Your task to perform on an android device: check data usage Image 0: 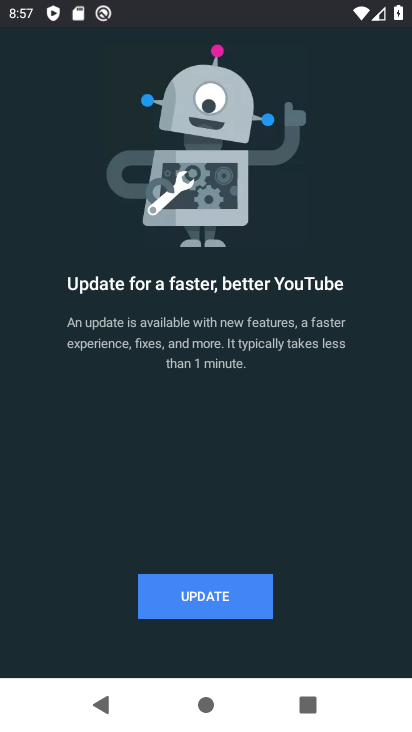
Step 0: press home button
Your task to perform on an android device: check data usage Image 1: 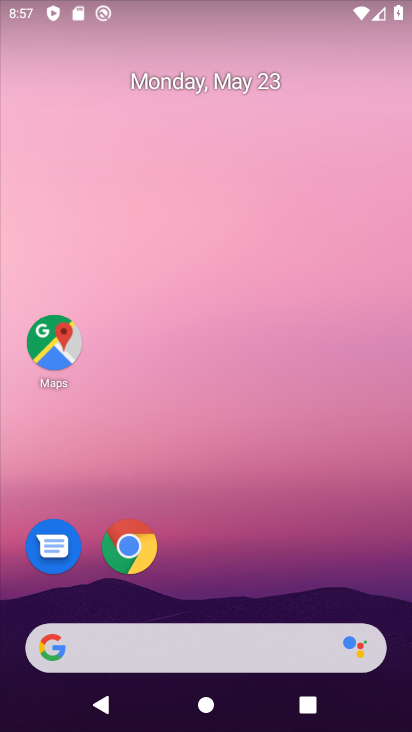
Step 1: drag from (256, 523) to (253, 143)
Your task to perform on an android device: check data usage Image 2: 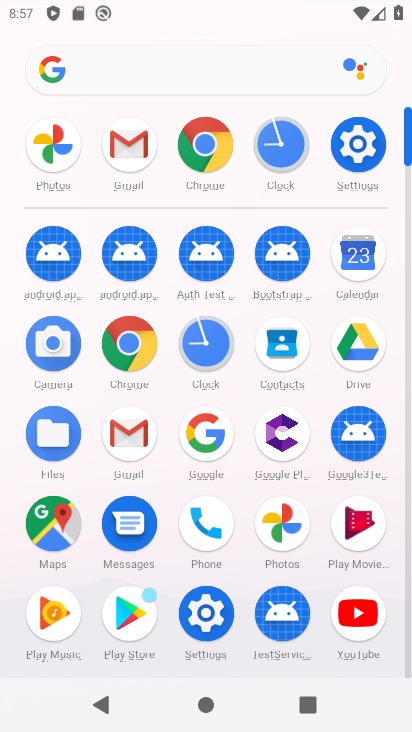
Step 2: click (370, 144)
Your task to perform on an android device: check data usage Image 3: 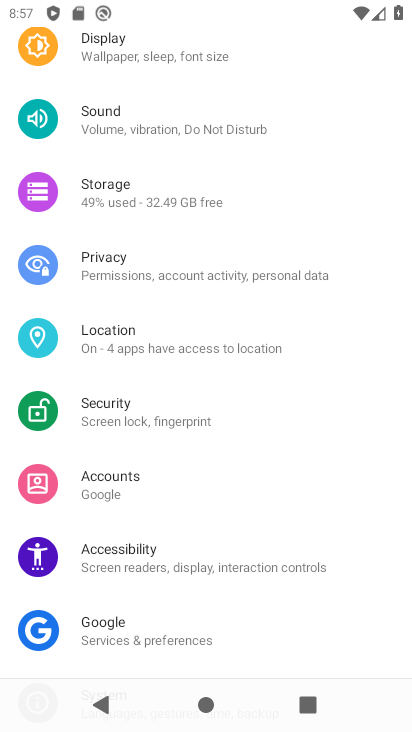
Step 3: drag from (136, 564) to (198, 677)
Your task to perform on an android device: check data usage Image 4: 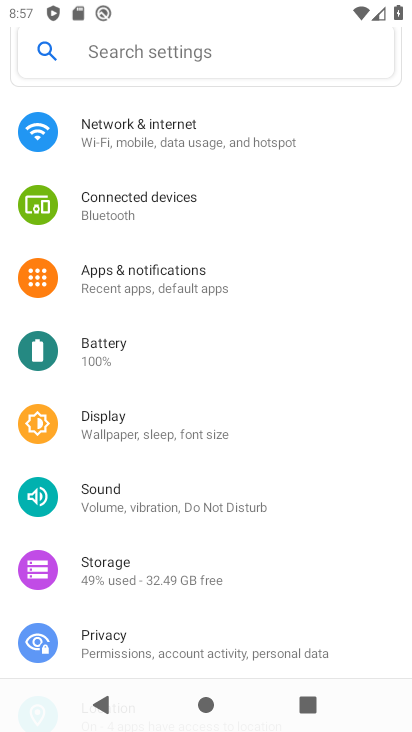
Step 4: drag from (185, 224) to (136, 389)
Your task to perform on an android device: check data usage Image 5: 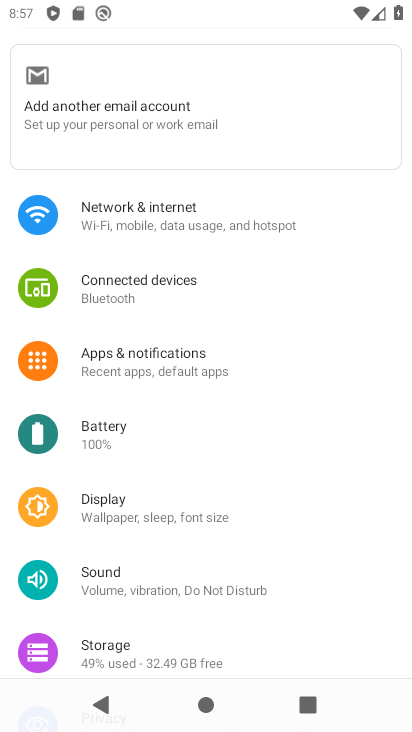
Step 5: click (160, 219)
Your task to perform on an android device: check data usage Image 6: 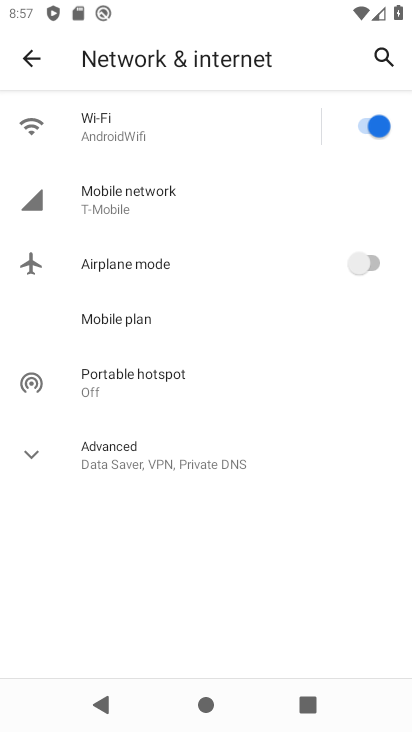
Step 6: click (157, 202)
Your task to perform on an android device: check data usage Image 7: 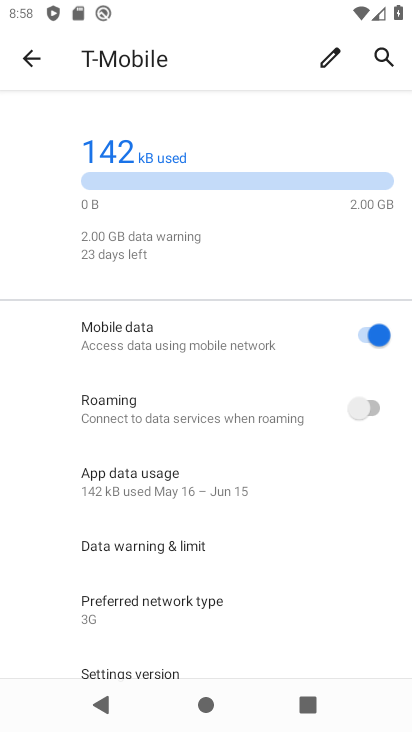
Step 7: task complete